Your task to perform on an android device: toggle translation in the chrome app Image 0: 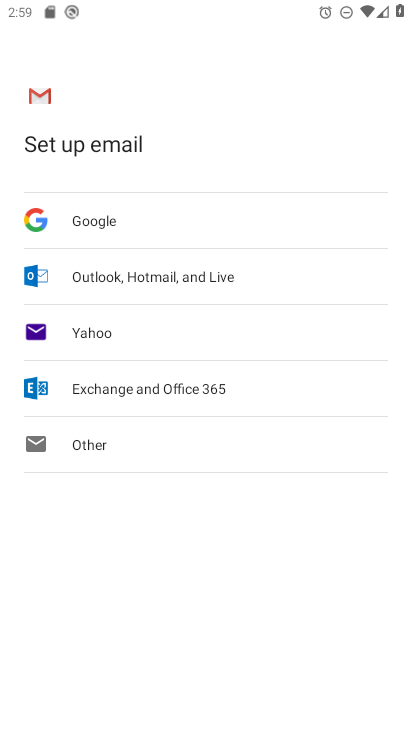
Step 0: press home button
Your task to perform on an android device: toggle translation in the chrome app Image 1: 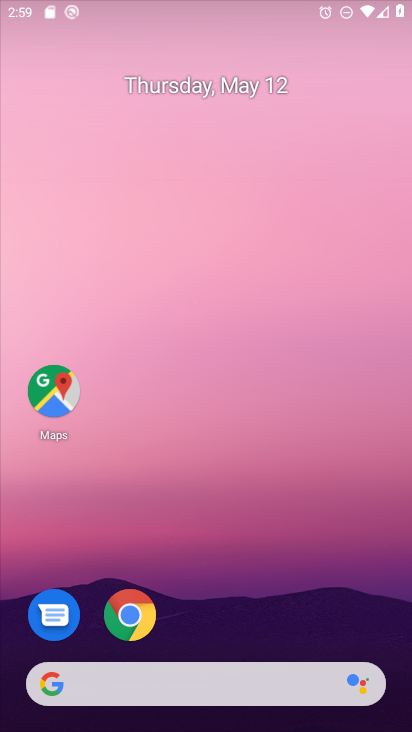
Step 1: drag from (255, 668) to (323, 105)
Your task to perform on an android device: toggle translation in the chrome app Image 2: 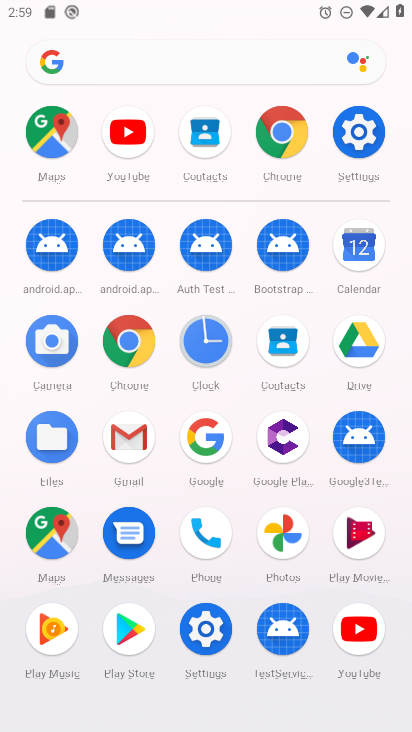
Step 2: click (137, 359)
Your task to perform on an android device: toggle translation in the chrome app Image 3: 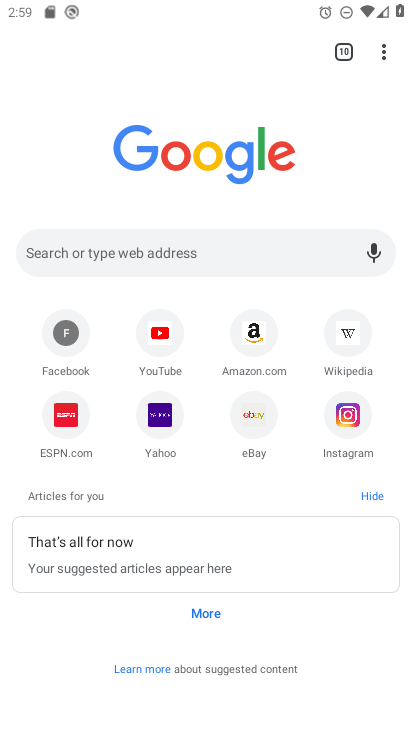
Step 3: drag from (378, 48) to (270, 435)
Your task to perform on an android device: toggle translation in the chrome app Image 4: 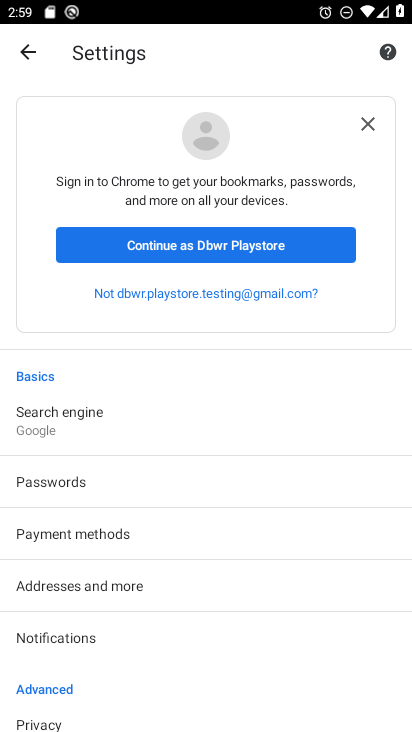
Step 4: drag from (174, 647) to (189, 263)
Your task to perform on an android device: toggle translation in the chrome app Image 5: 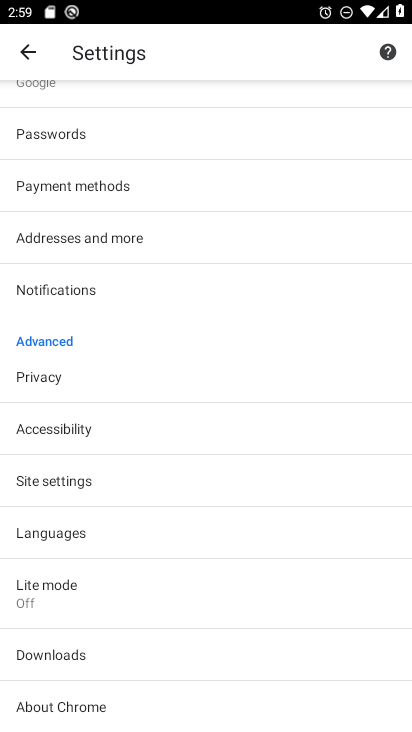
Step 5: click (101, 534)
Your task to perform on an android device: toggle translation in the chrome app Image 6: 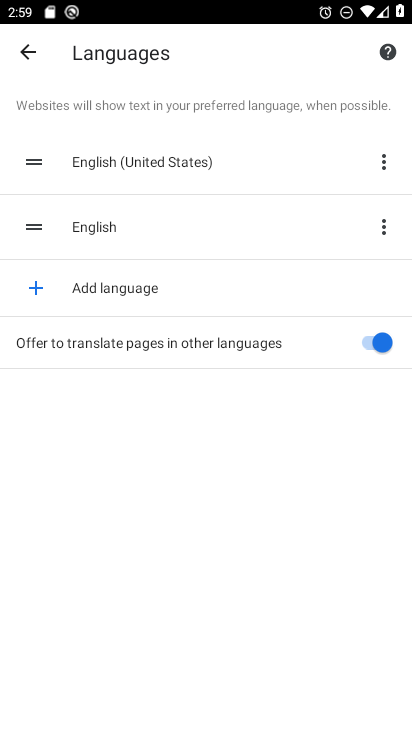
Step 6: click (365, 347)
Your task to perform on an android device: toggle translation in the chrome app Image 7: 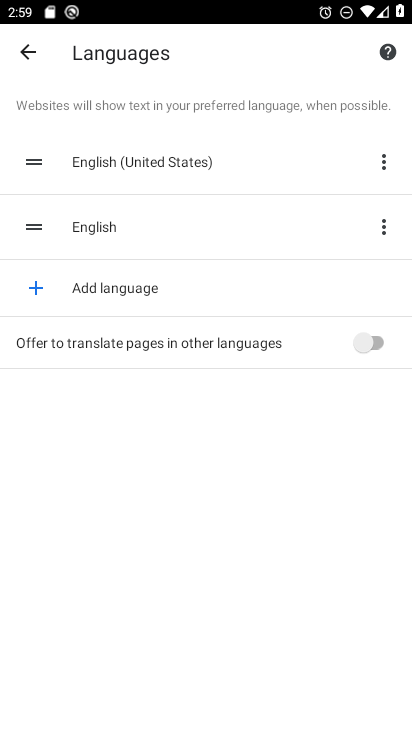
Step 7: task complete